Your task to perform on an android device: uninstall "HBO Max: Stream TV & Movies" Image 0: 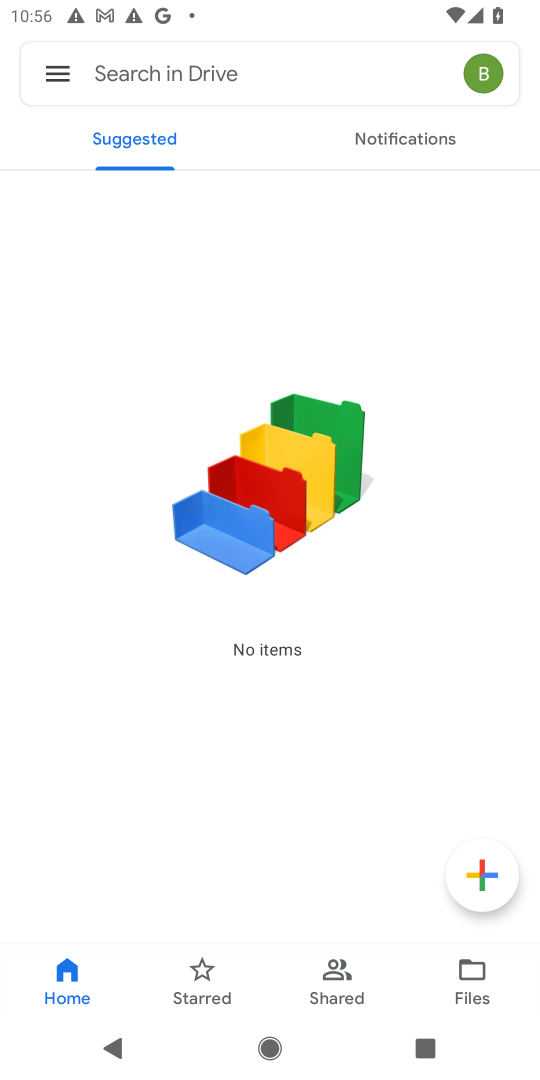
Step 0: press home button
Your task to perform on an android device: uninstall "HBO Max: Stream TV & Movies" Image 1: 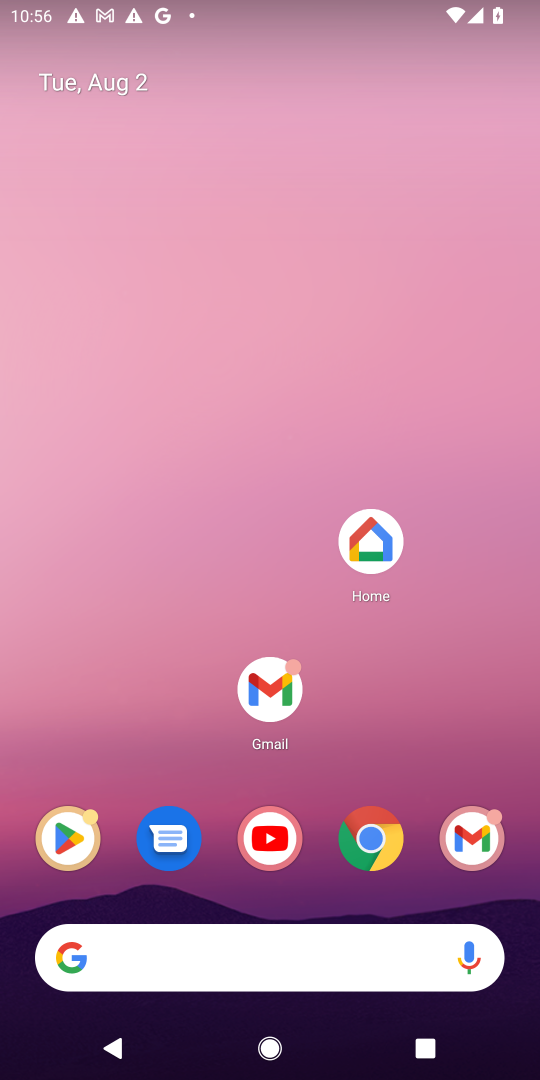
Step 1: drag from (473, 376) to (470, 132)
Your task to perform on an android device: uninstall "HBO Max: Stream TV & Movies" Image 2: 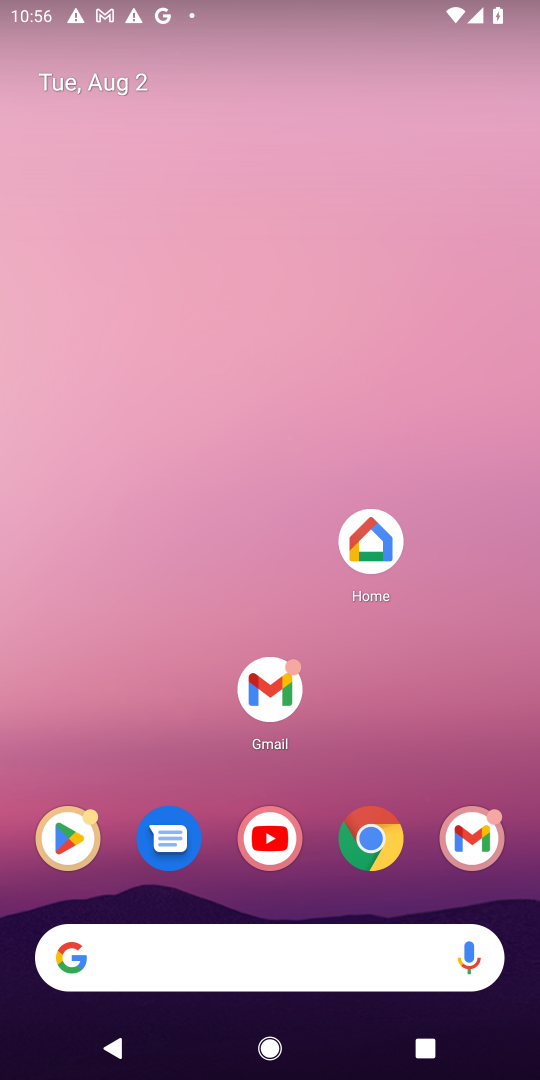
Step 2: drag from (407, 671) to (419, 99)
Your task to perform on an android device: uninstall "HBO Max: Stream TV & Movies" Image 3: 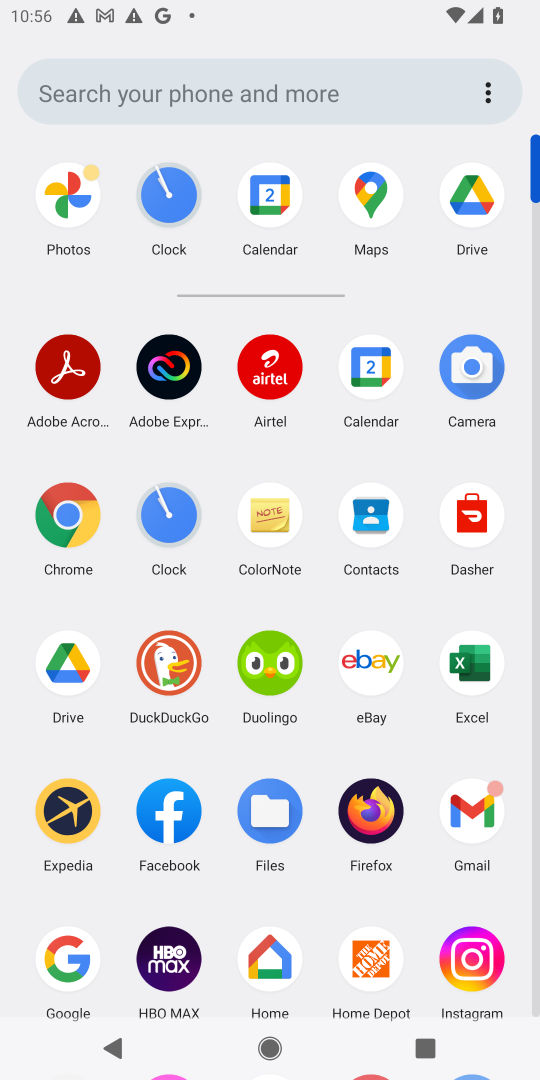
Step 3: drag from (413, 789) to (416, 421)
Your task to perform on an android device: uninstall "HBO Max: Stream TV & Movies" Image 4: 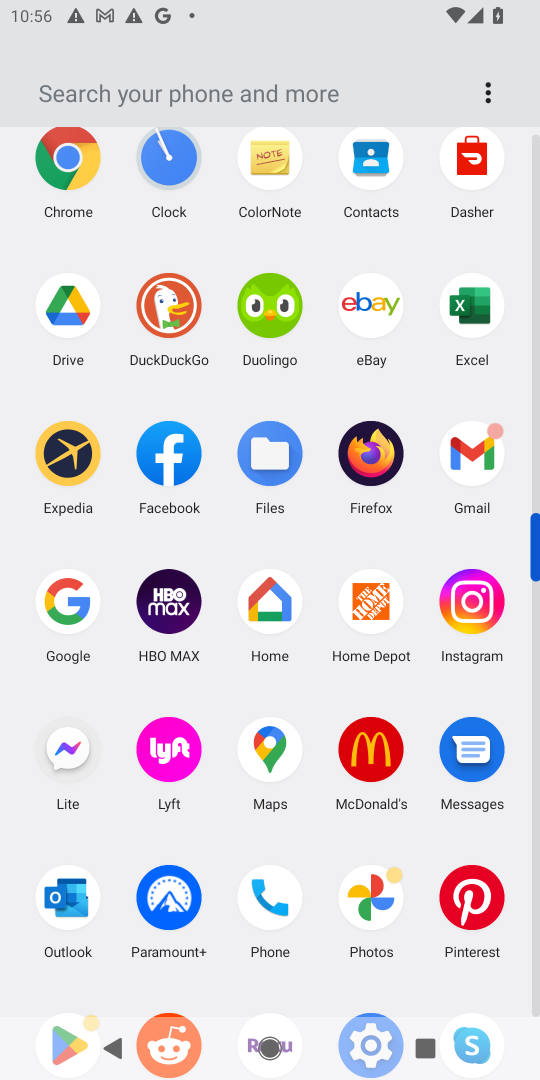
Step 4: drag from (310, 808) to (316, 502)
Your task to perform on an android device: uninstall "HBO Max: Stream TV & Movies" Image 5: 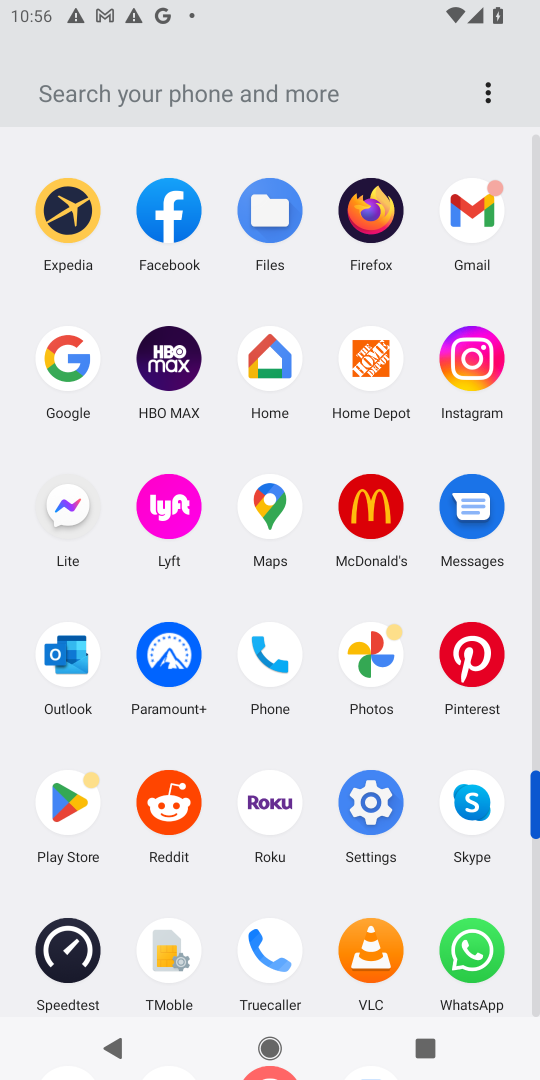
Step 5: drag from (312, 898) to (319, 576)
Your task to perform on an android device: uninstall "HBO Max: Stream TV & Movies" Image 6: 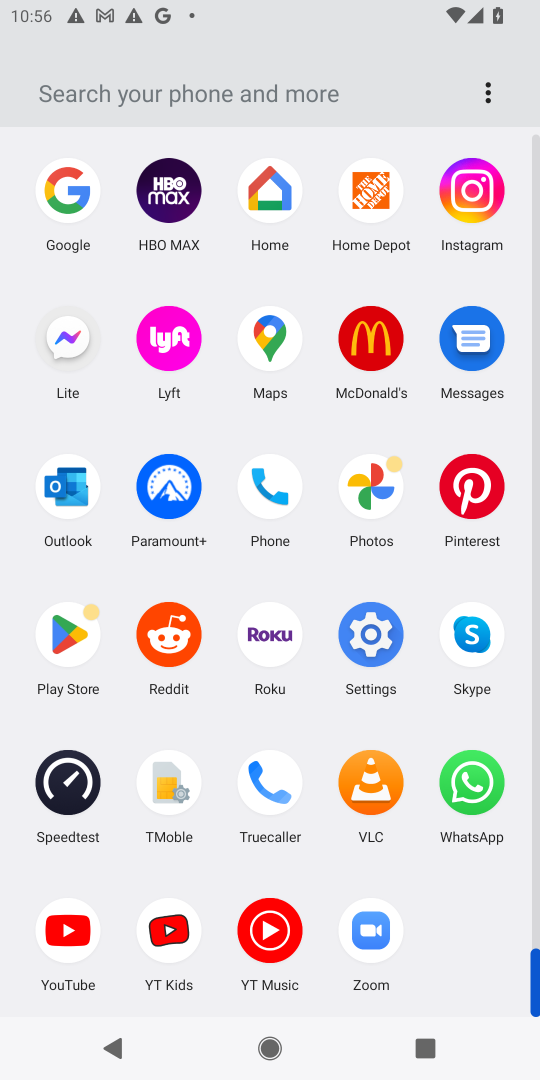
Step 6: click (69, 638)
Your task to perform on an android device: uninstall "HBO Max: Stream TV & Movies" Image 7: 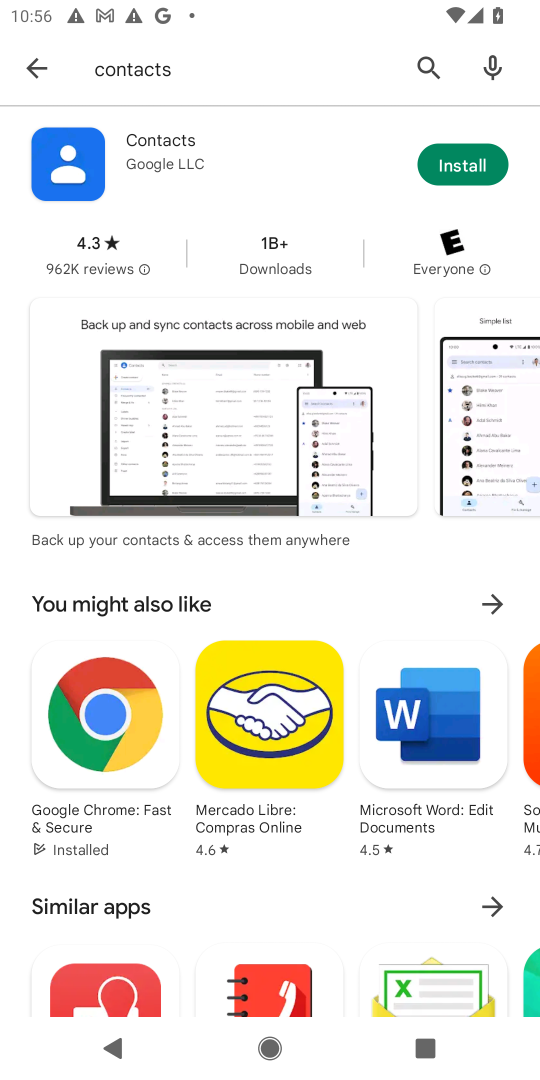
Step 7: click (430, 55)
Your task to perform on an android device: uninstall "HBO Max: Stream TV & Movies" Image 8: 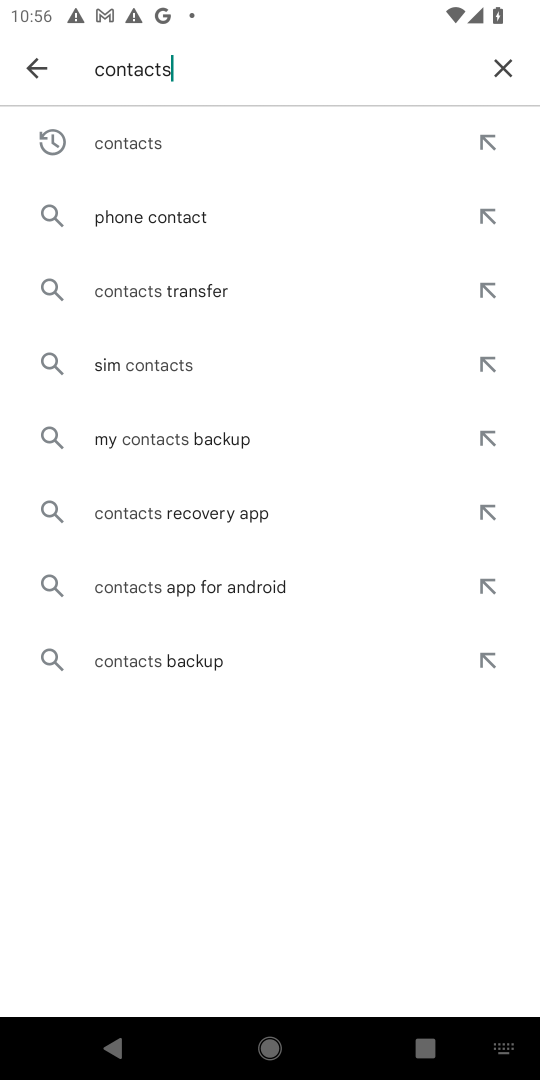
Step 8: click (493, 63)
Your task to perform on an android device: uninstall "HBO Max: Stream TV & Movies" Image 9: 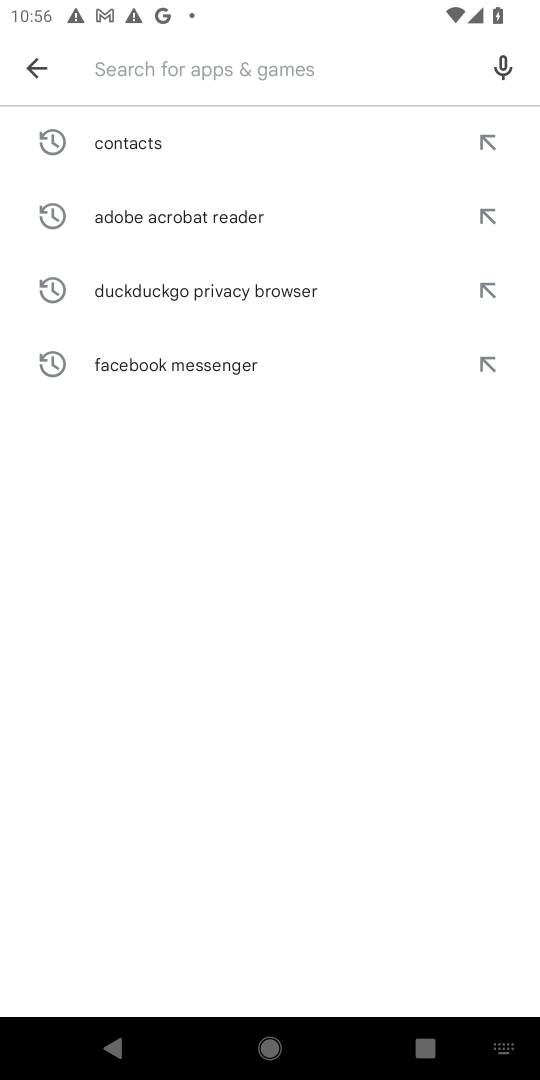
Step 9: click (368, 52)
Your task to perform on an android device: uninstall "HBO Max: Stream TV & Movies" Image 10: 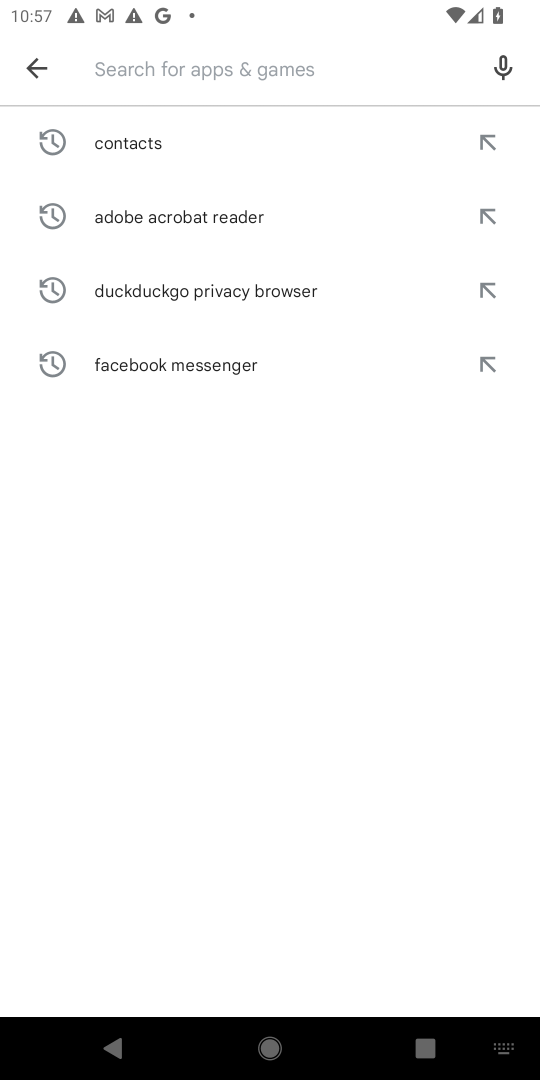
Step 10: type "hbo max stream tv movies"
Your task to perform on an android device: uninstall "HBO Max: Stream TV & Movies" Image 11: 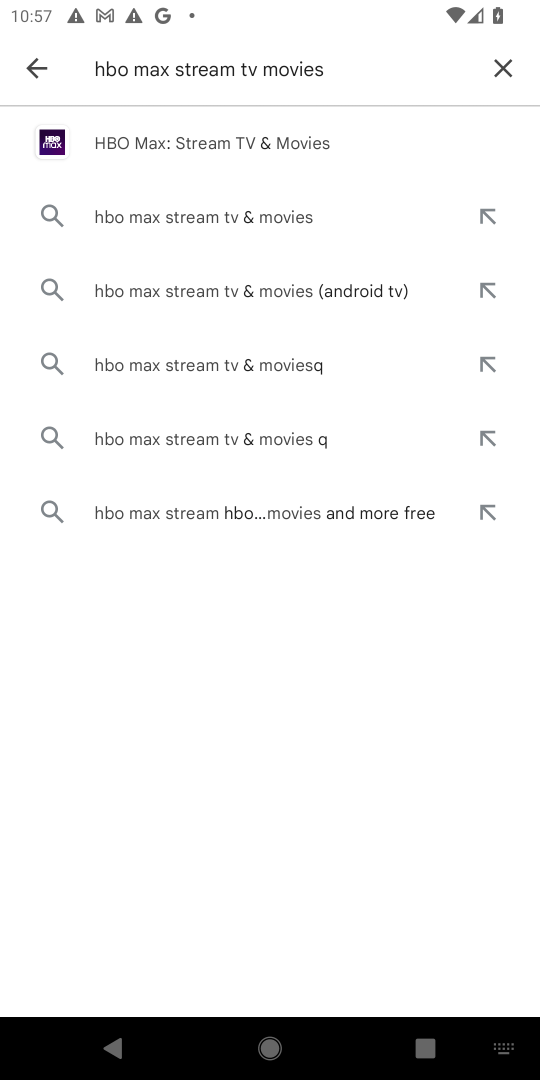
Step 11: click (336, 141)
Your task to perform on an android device: uninstall "HBO Max: Stream TV & Movies" Image 12: 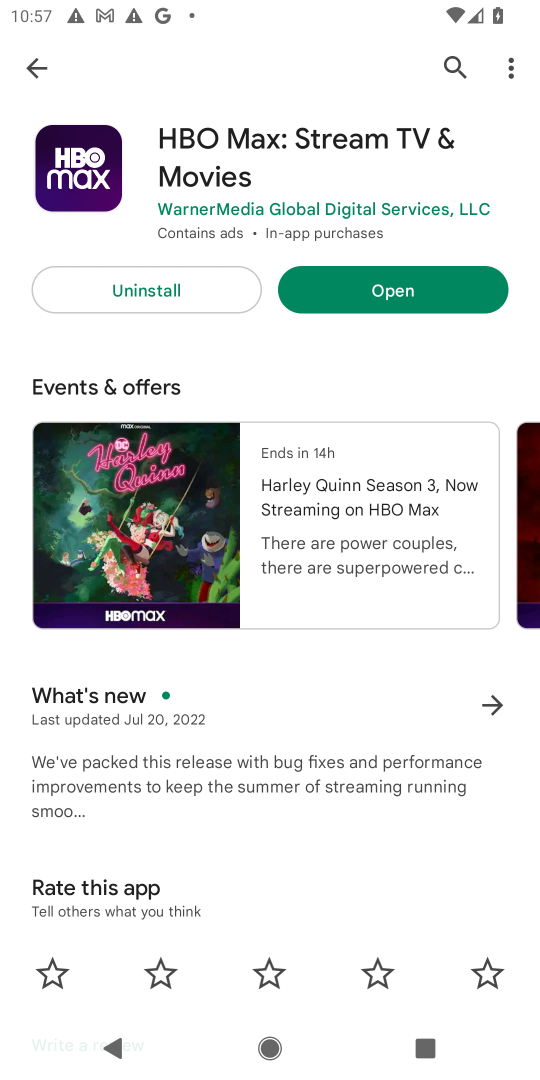
Step 12: click (123, 284)
Your task to perform on an android device: uninstall "HBO Max: Stream TV & Movies" Image 13: 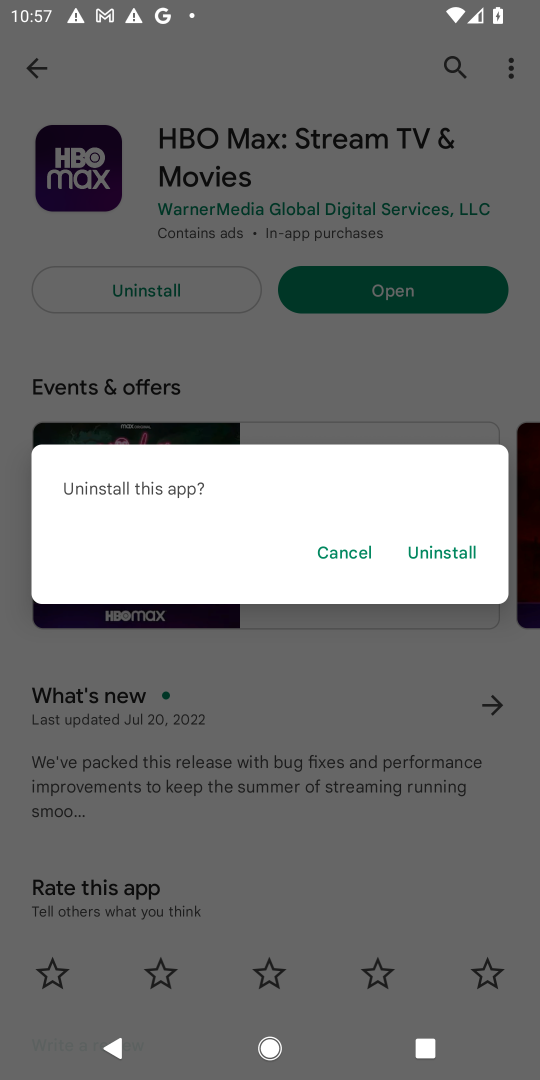
Step 13: click (454, 555)
Your task to perform on an android device: uninstall "HBO Max: Stream TV & Movies" Image 14: 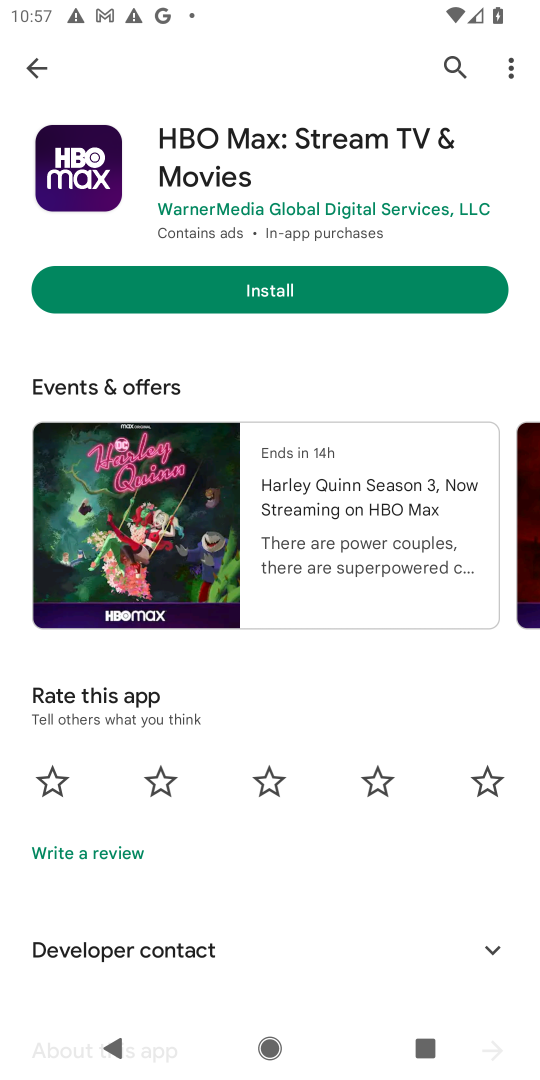
Step 14: task complete